Your task to perform on an android device: Show me recent news Image 0: 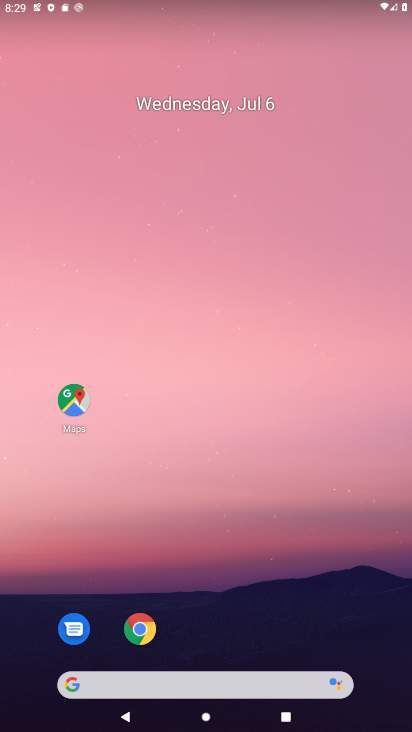
Step 0: drag from (243, 686) to (260, 0)
Your task to perform on an android device: Show me recent news Image 1: 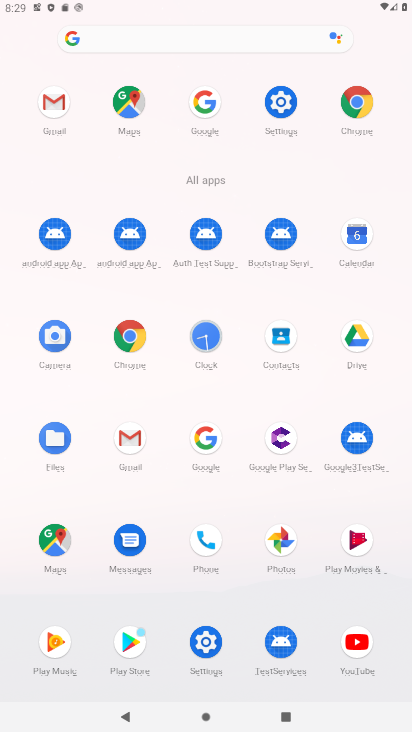
Step 1: click (211, 438)
Your task to perform on an android device: Show me recent news Image 2: 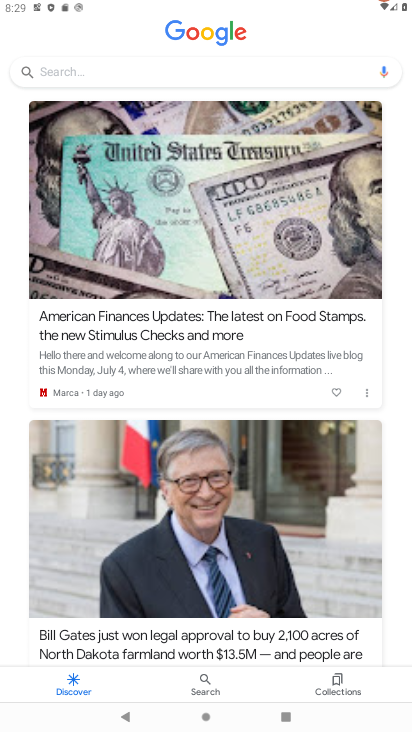
Step 2: task complete